Your task to perform on an android device: Turn on the flashlight Image 0: 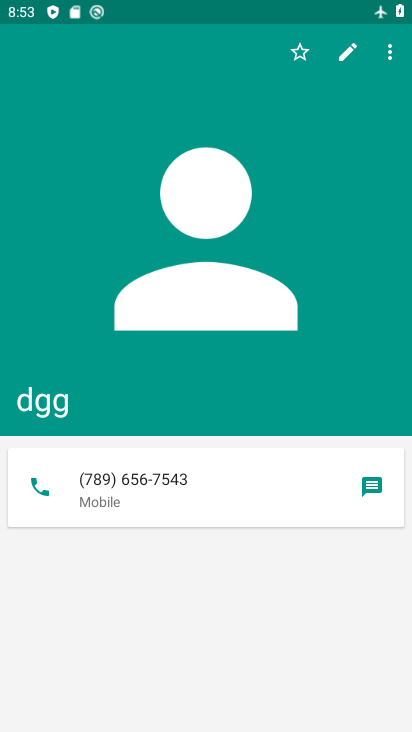
Step 0: press home button
Your task to perform on an android device: Turn on the flashlight Image 1: 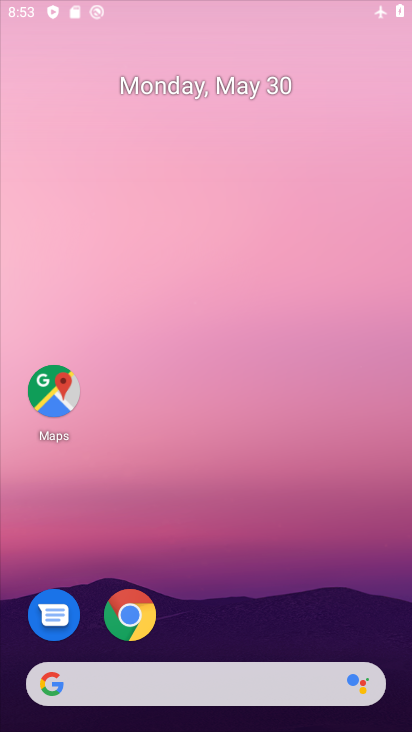
Step 1: drag from (182, 24) to (69, 454)
Your task to perform on an android device: Turn on the flashlight Image 2: 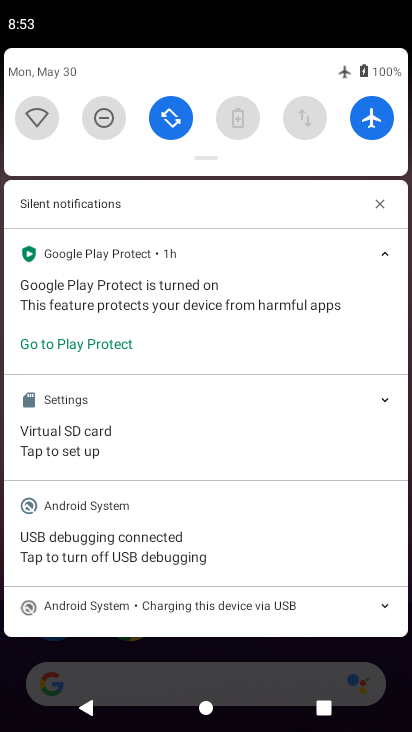
Step 2: drag from (219, 153) to (114, 629)
Your task to perform on an android device: Turn on the flashlight Image 3: 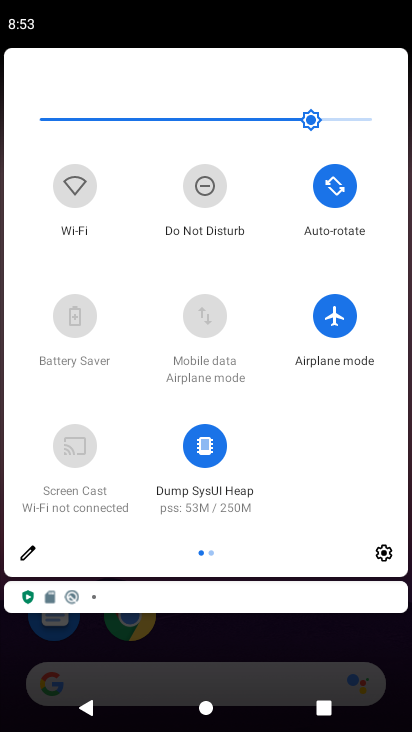
Step 3: click (37, 546)
Your task to perform on an android device: Turn on the flashlight Image 4: 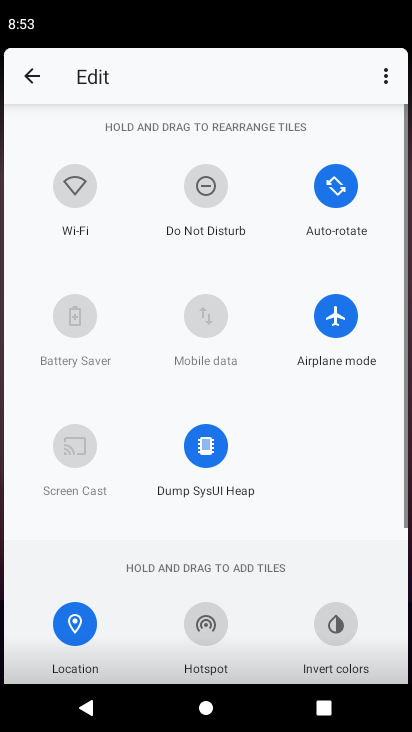
Step 4: task complete